Your task to perform on an android device: What's on my calendar tomorrow? Image 0: 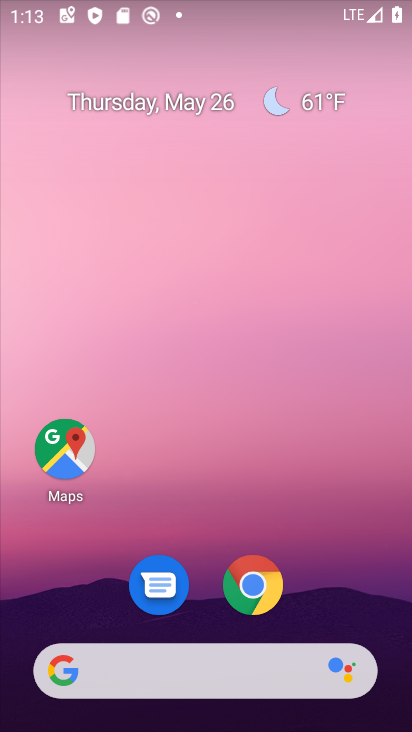
Step 0: drag from (277, 505) to (300, 34)
Your task to perform on an android device: What's on my calendar tomorrow? Image 1: 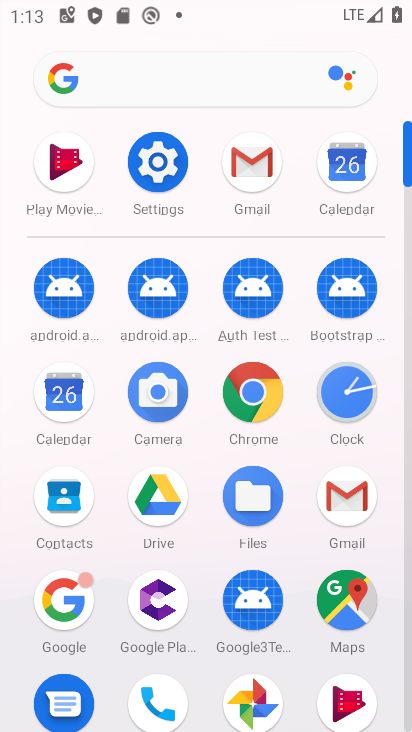
Step 1: click (338, 162)
Your task to perform on an android device: What's on my calendar tomorrow? Image 2: 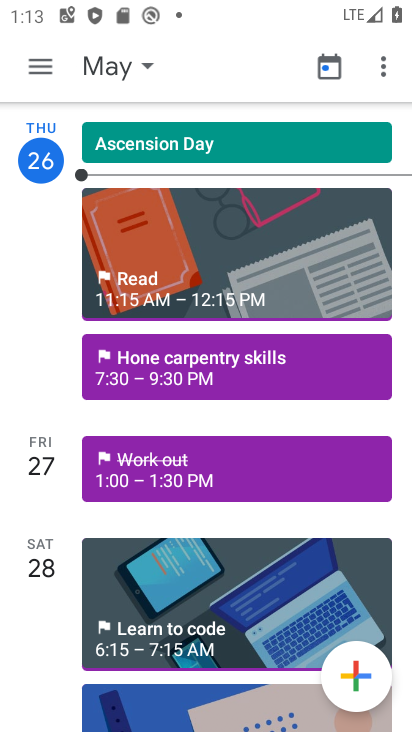
Step 2: task complete